Your task to perform on an android device: What is the recent news? Image 0: 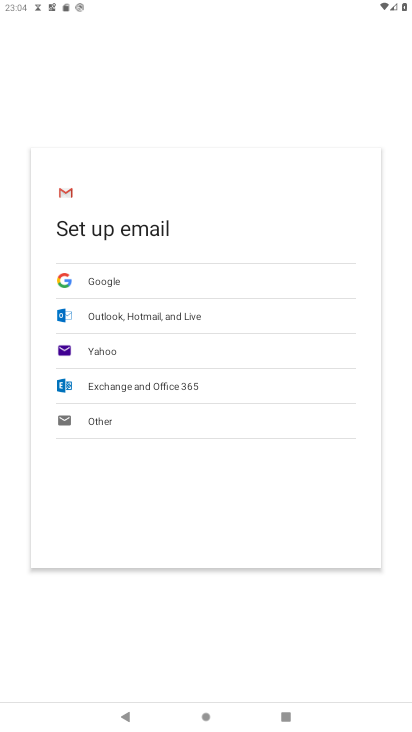
Step 0: press home button
Your task to perform on an android device: What is the recent news? Image 1: 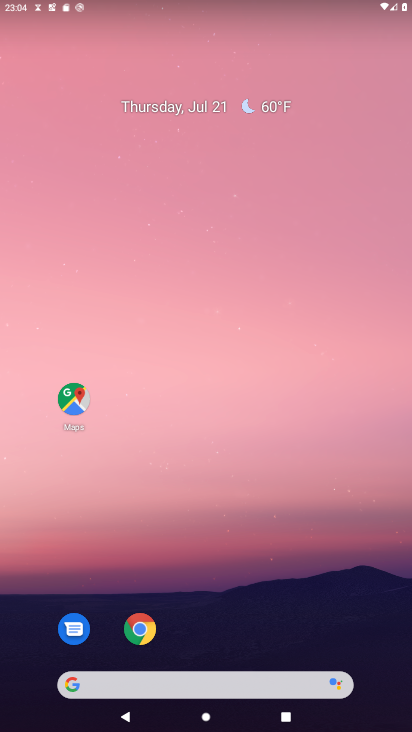
Step 1: click (131, 628)
Your task to perform on an android device: What is the recent news? Image 2: 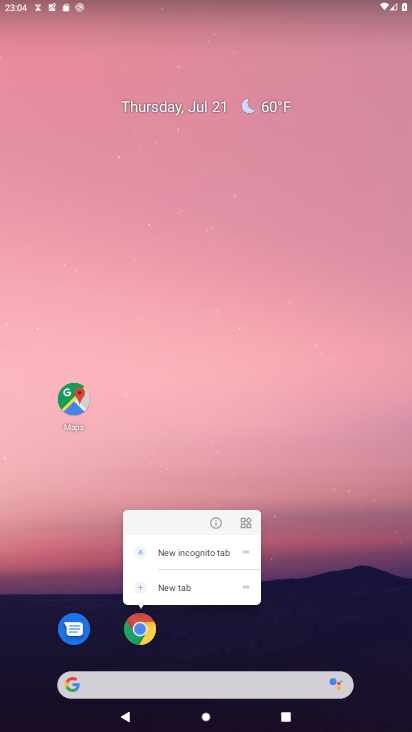
Step 2: click (145, 629)
Your task to perform on an android device: What is the recent news? Image 3: 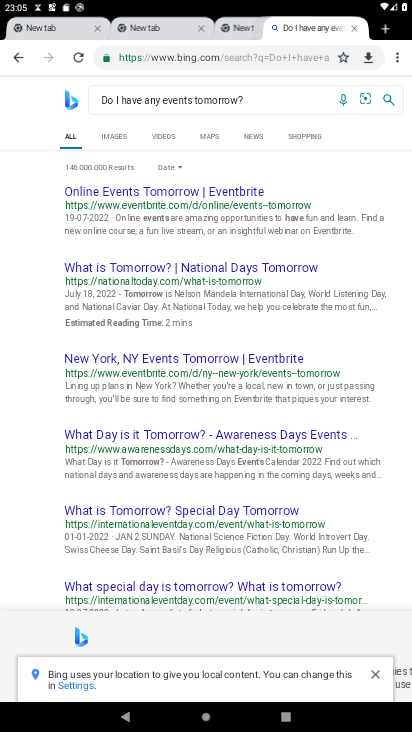
Step 3: click (387, 33)
Your task to perform on an android device: What is the recent news? Image 4: 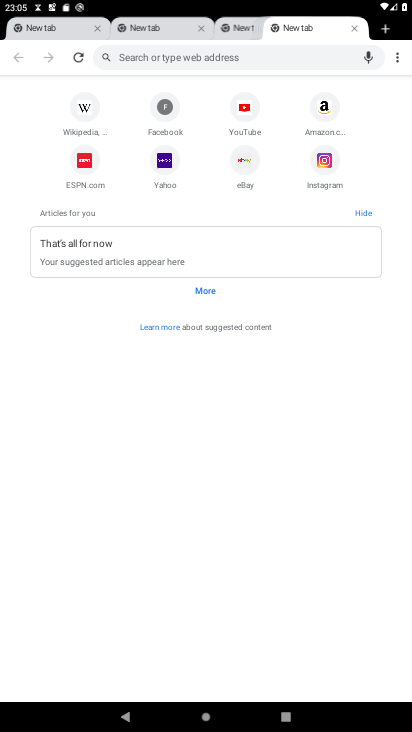
Step 4: click (197, 50)
Your task to perform on an android device: What is the recent news? Image 5: 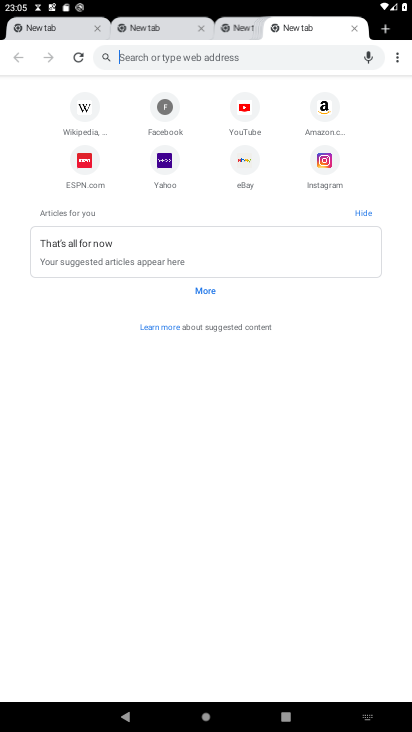
Step 5: type "What is the recent news "
Your task to perform on an android device: What is the recent news? Image 6: 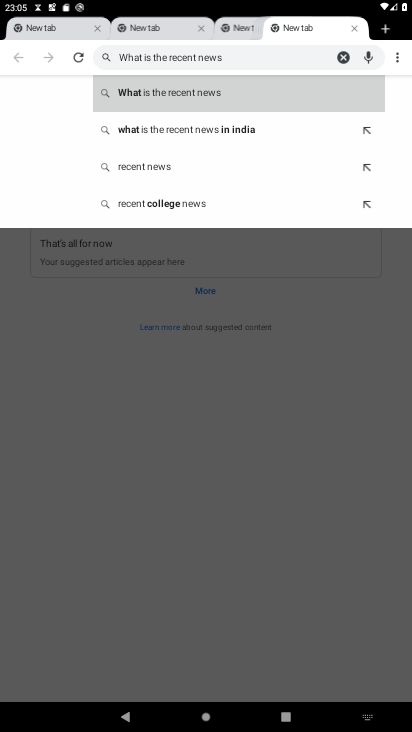
Step 6: click (262, 79)
Your task to perform on an android device: What is the recent news? Image 7: 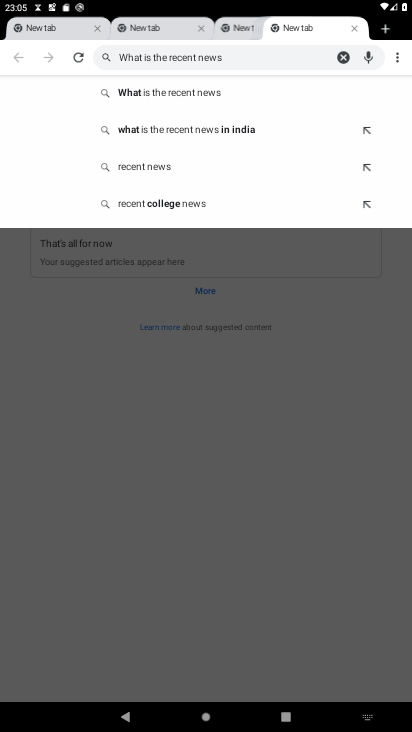
Step 7: click (170, 88)
Your task to perform on an android device: What is the recent news? Image 8: 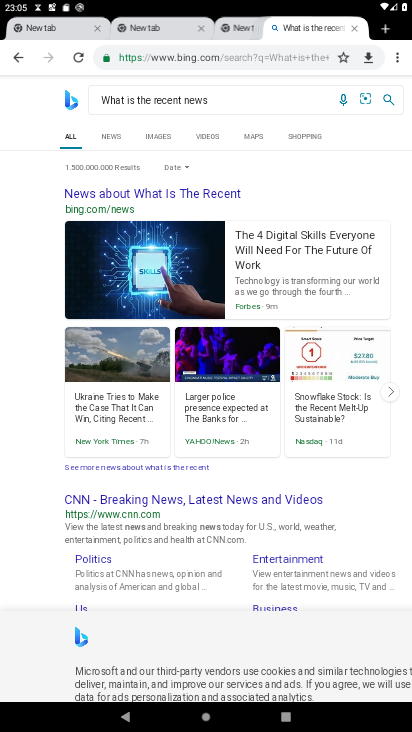
Step 8: task complete